Your task to perform on an android device: turn off wifi Image 0: 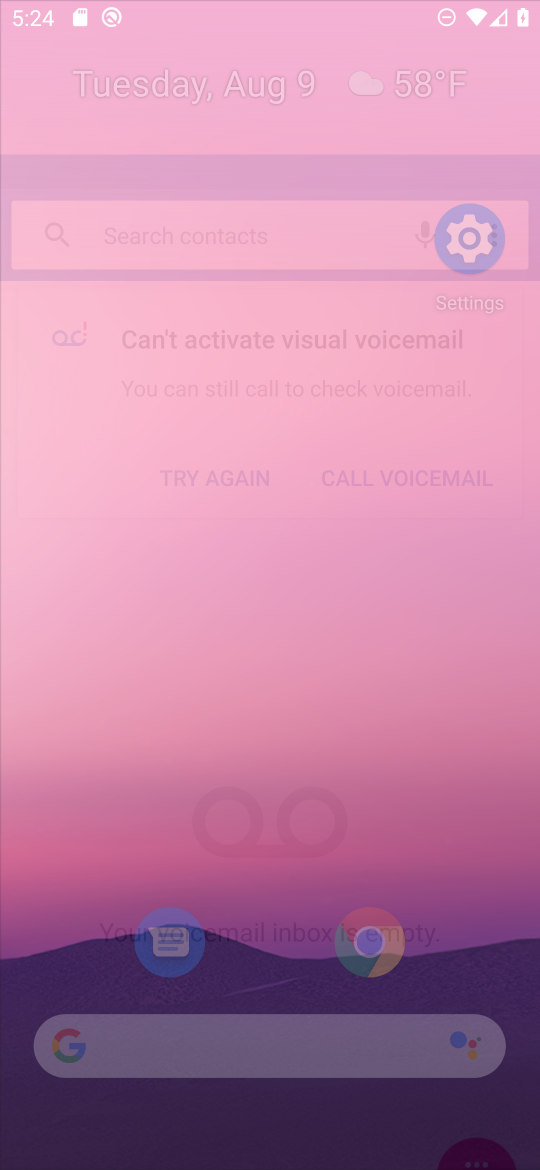
Step 0: press home button
Your task to perform on an android device: turn off wifi Image 1: 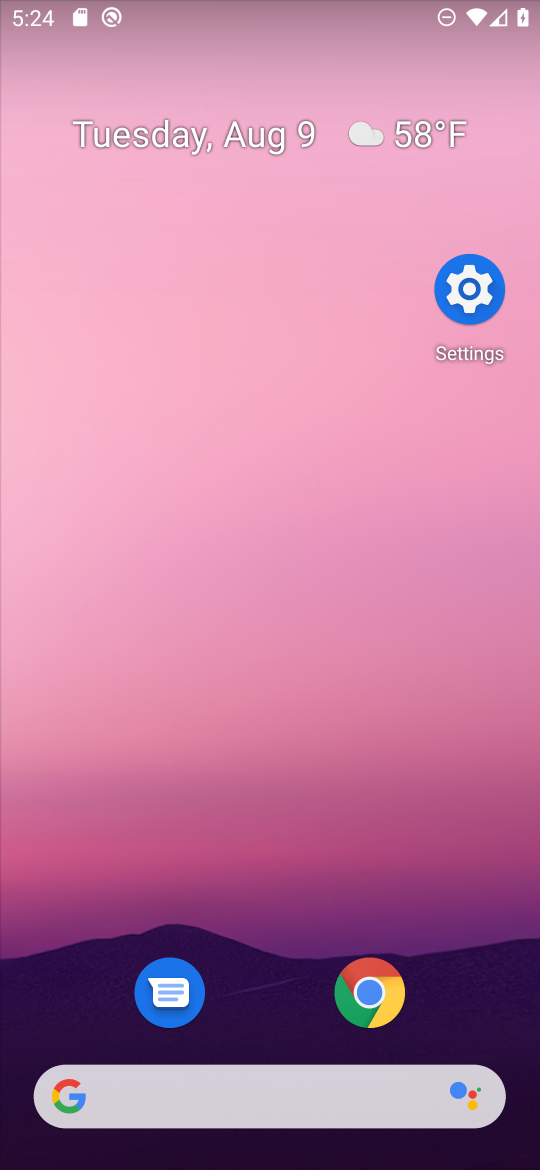
Step 1: drag from (252, 1073) to (308, 40)
Your task to perform on an android device: turn off wifi Image 2: 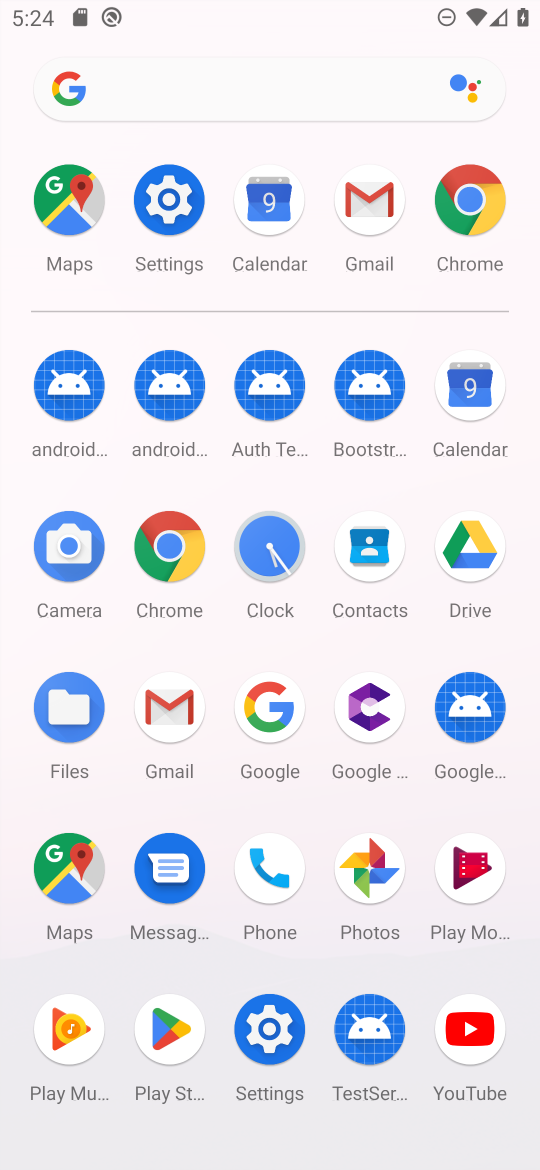
Step 2: click (187, 189)
Your task to perform on an android device: turn off wifi Image 3: 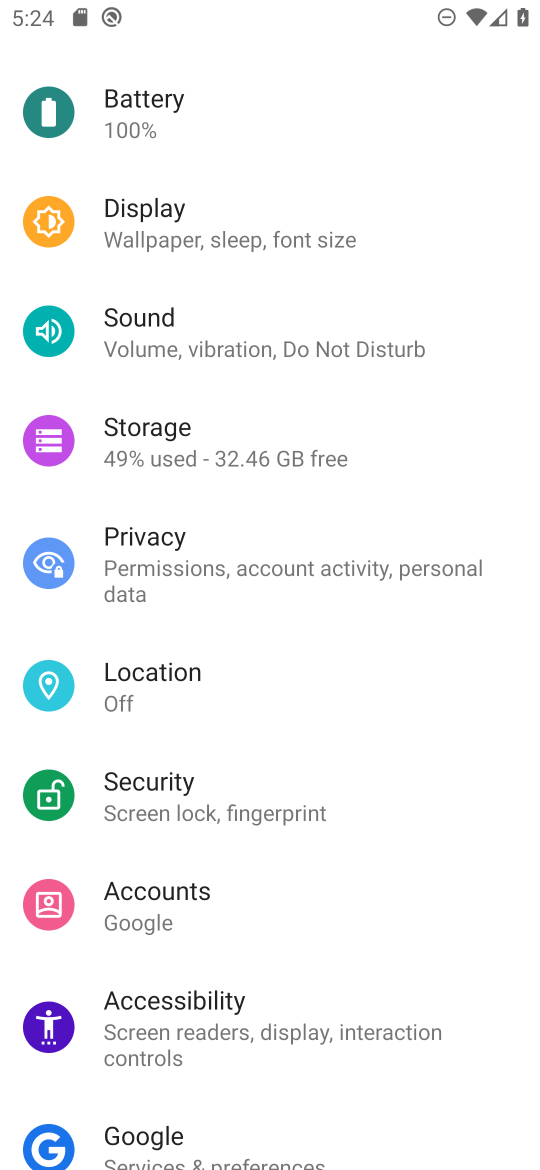
Step 3: drag from (473, 427) to (526, 473)
Your task to perform on an android device: turn off wifi Image 4: 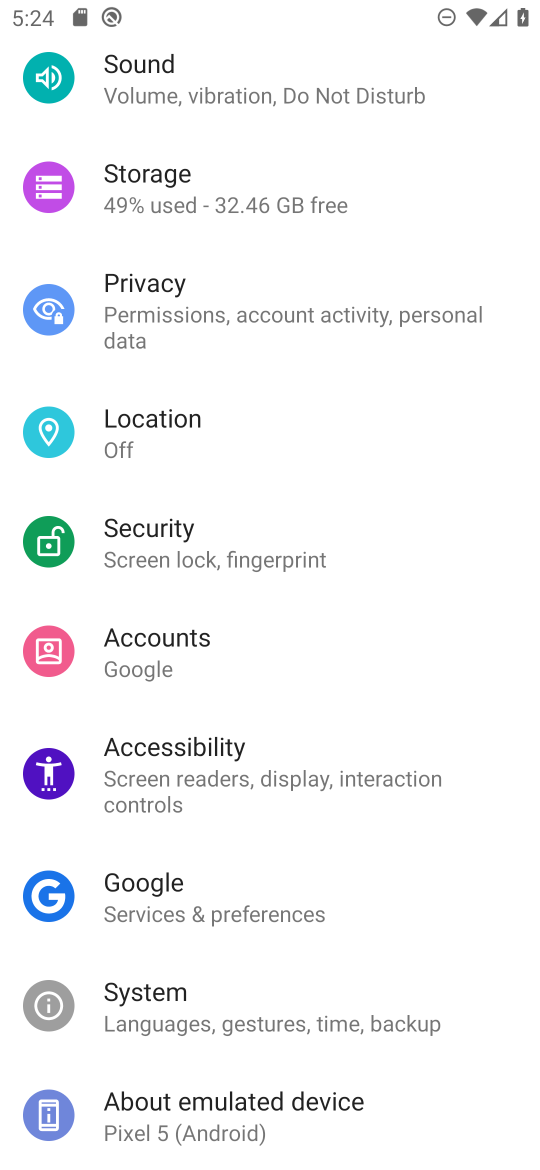
Step 4: drag from (489, 461) to (454, 1156)
Your task to perform on an android device: turn off wifi Image 5: 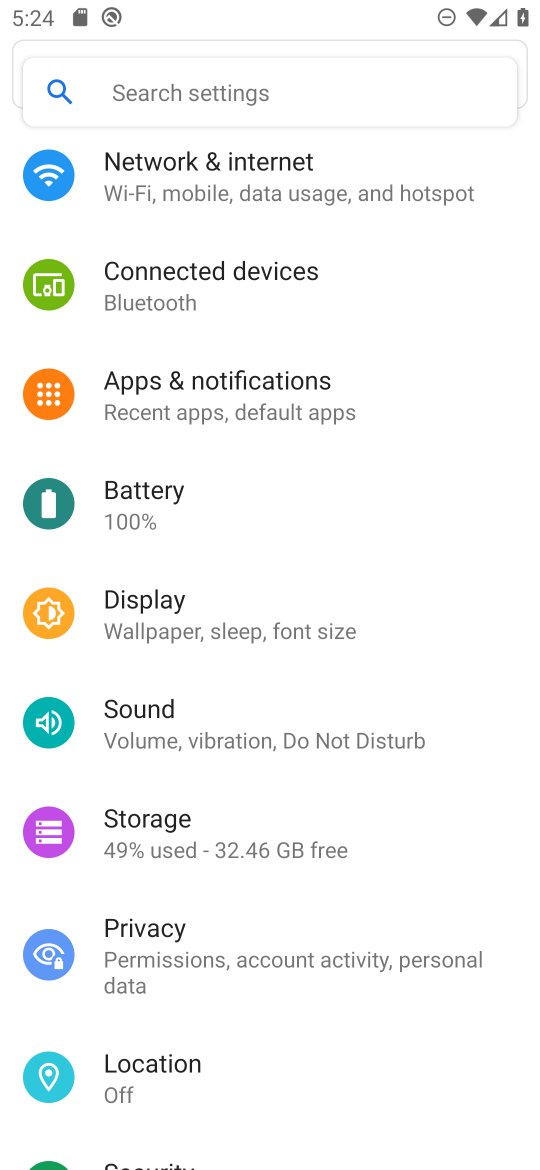
Step 5: click (255, 182)
Your task to perform on an android device: turn off wifi Image 6: 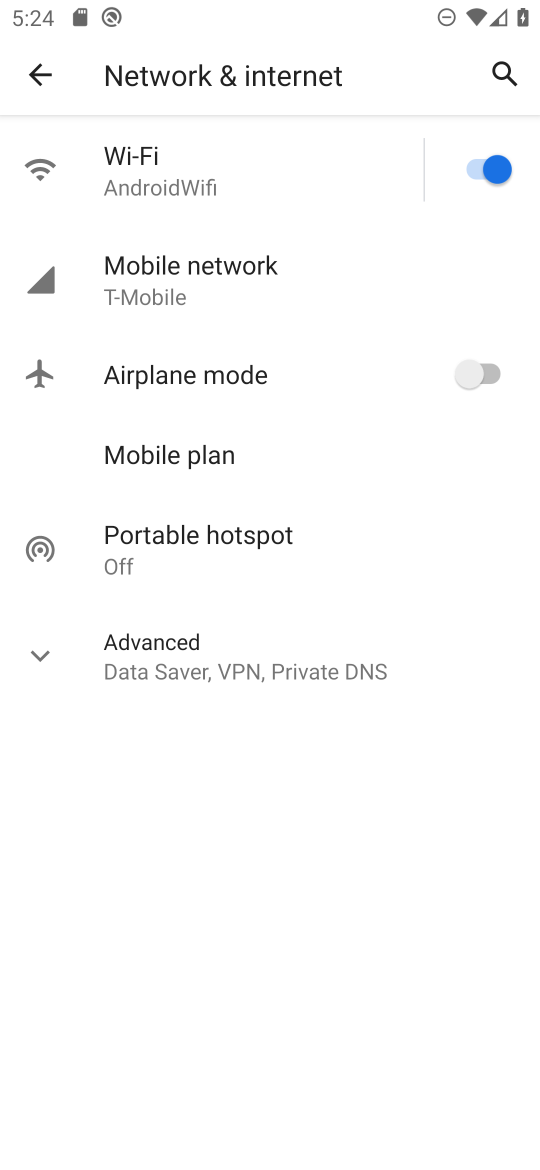
Step 6: click (489, 163)
Your task to perform on an android device: turn off wifi Image 7: 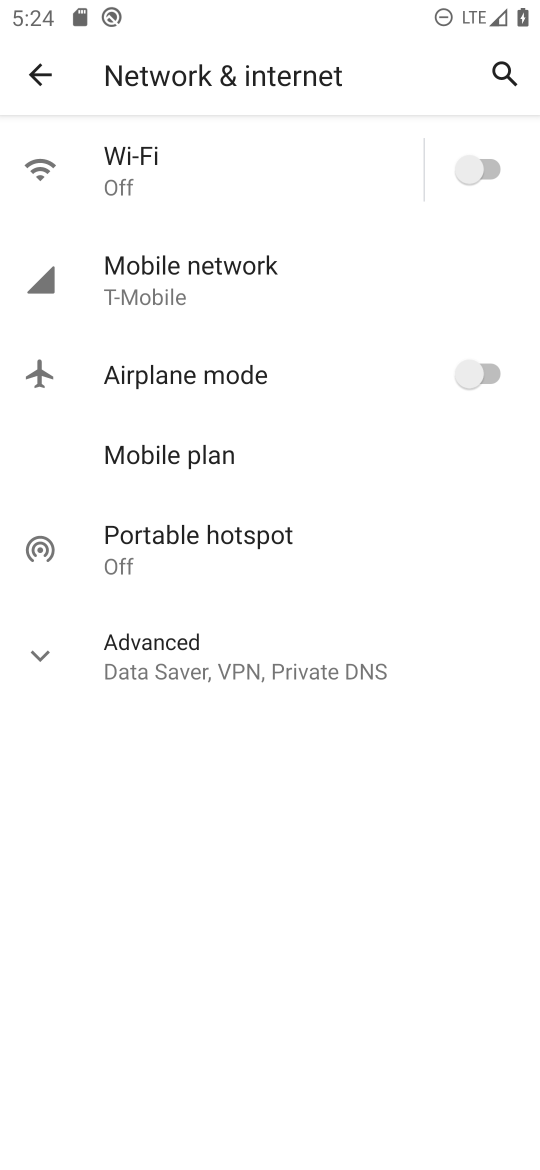
Step 7: task complete